Your task to perform on an android device: refresh tabs in the chrome app Image 0: 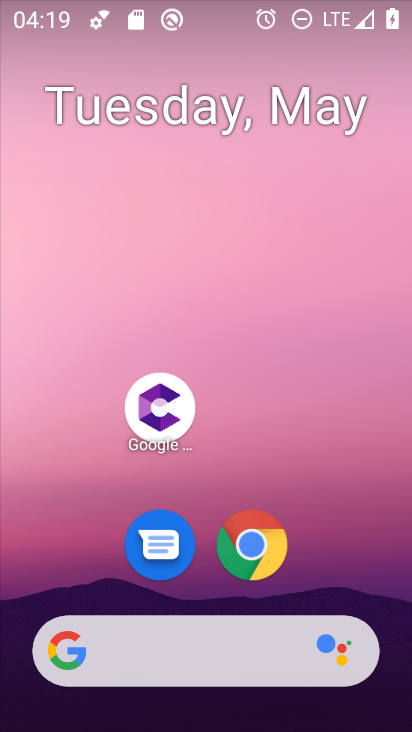
Step 0: drag from (366, 547) to (365, 200)
Your task to perform on an android device: refresh tabs in the chrome app Image 1: 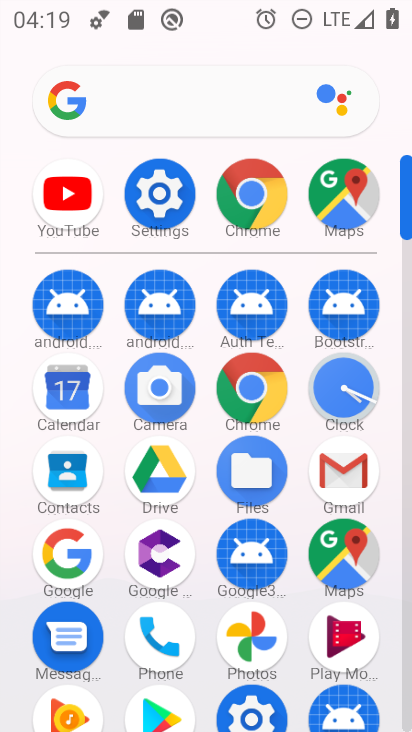
Step 1: click (272, 391)
Your task to perform on an android device: refresh tabs in the chrome app Image 2: 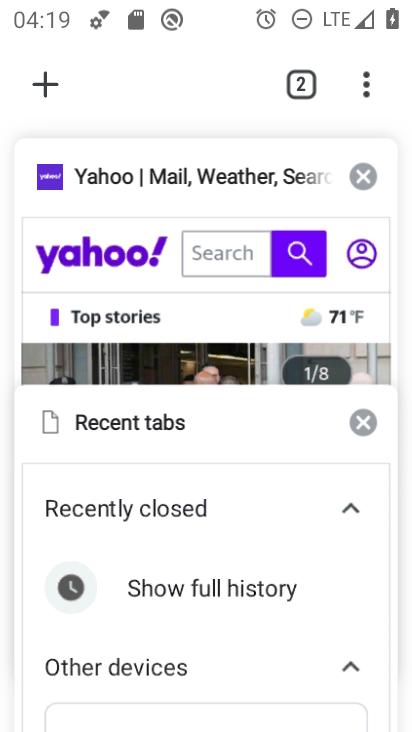
Step 2: click (370, 90)
Your task to perform on an android device: refresh tabs in the chrome app Image 3: 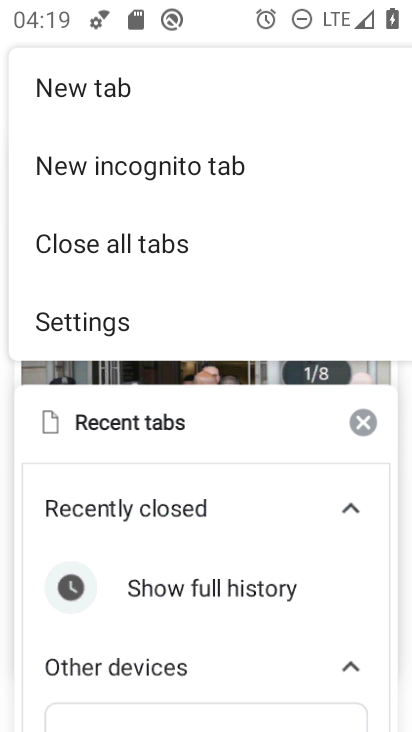
Step 3: click (265, 414)
Your task to perform on an android device: refresh tabs in the chrome app Image 4: 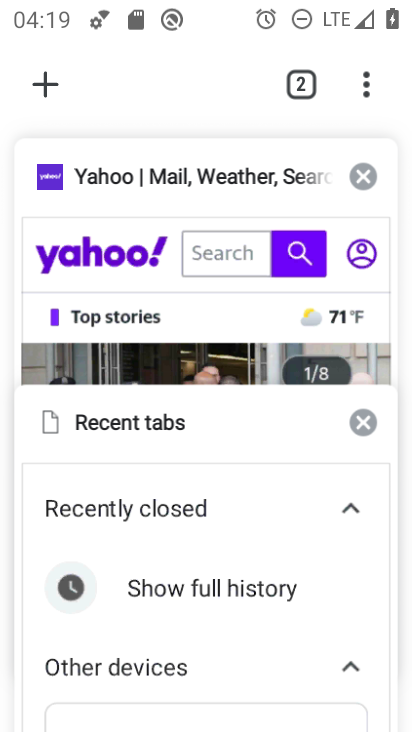
Step 4: press back button
Your task to perform on an android device: refresh tabs in the chrome app Image 5: 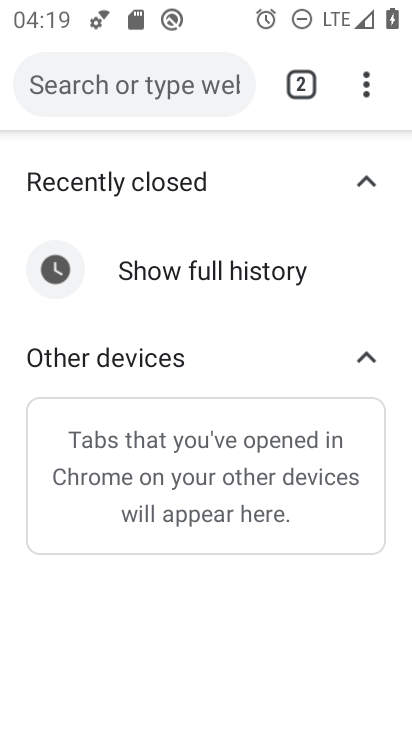
Step 5: click (368, 95)
Your task to perform on an android device: refresh tabs in the chrome app Image 6: 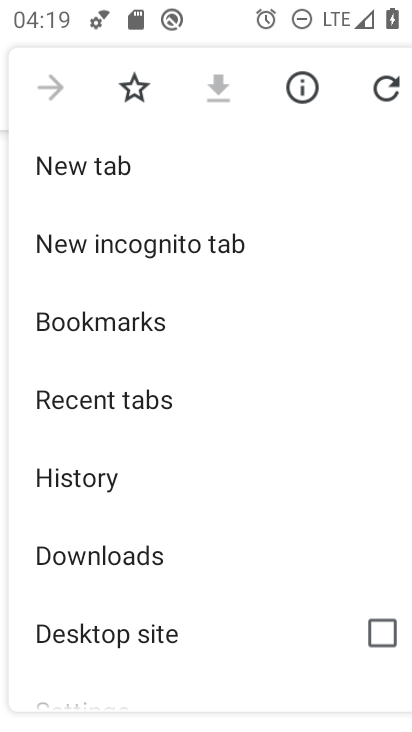
Step 6: click (392, 98)
Your task to perform on an android device: refresh tabs in the chrome app Image 7: 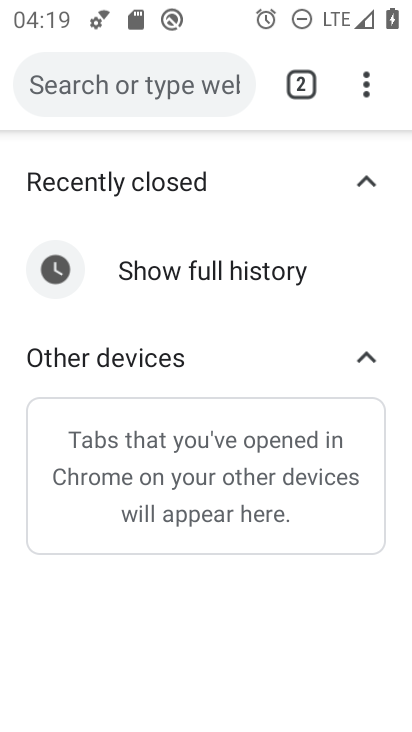
Step 7: task complete